Your task to perform on an android device: Show me the alarms in the clock app Image 0: 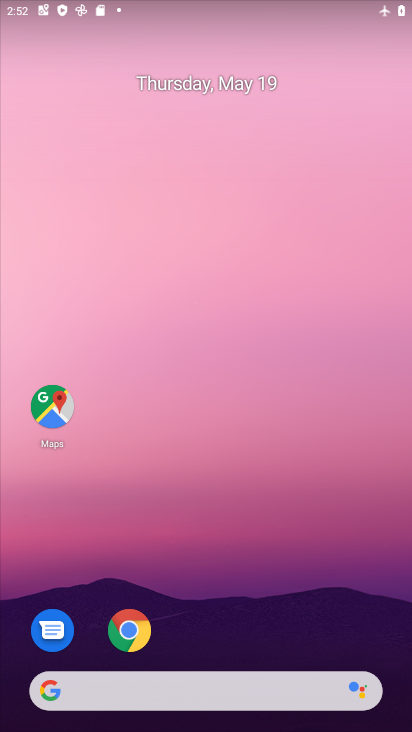
Step 0: drag from (386, 634) to (332, 134)
Your task to perform on an android device: Show me the alarms in the clock app Image 1: 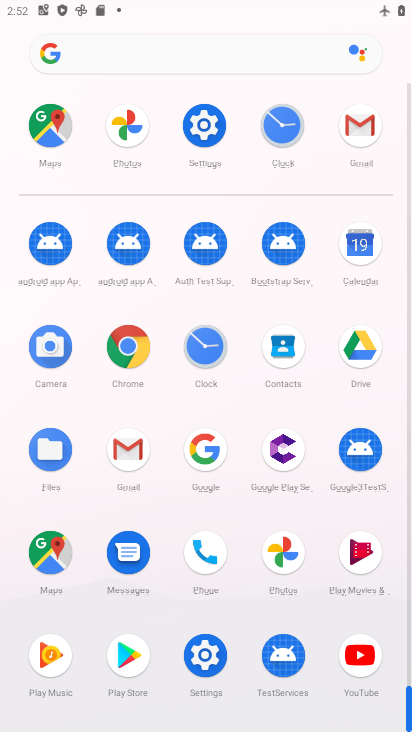
Step 1: click (203, 345)
Your task to perform on an android device: Show me the alarms in the clock app Image 2: 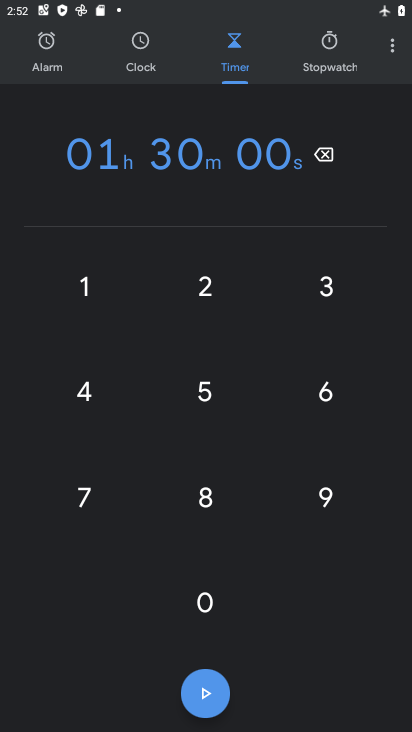
Step 2: click (46, 37)
Your task to perform on an android device: Show me the alarms in the clock app Image 3: 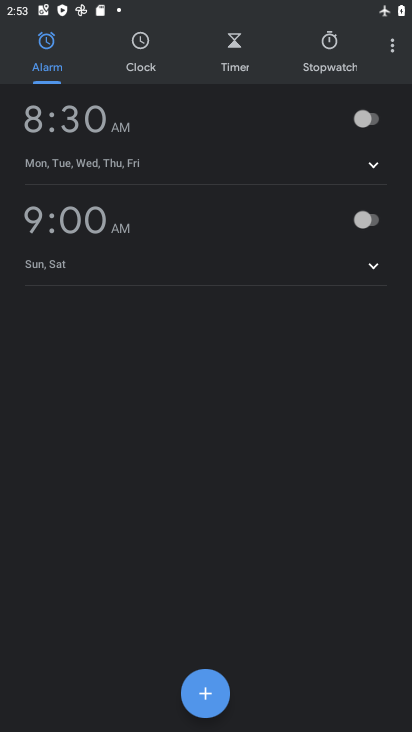
Step 3: task complete